Your task to perform on an android device: open app "Yahoo Mail" Image 0: 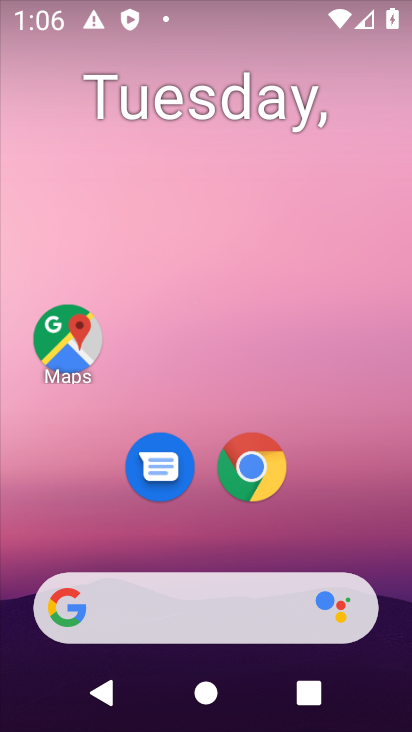
Step 0: click (361, 513)
Your task to perform on an android device: open app "Yahoo Mail" Image 1: 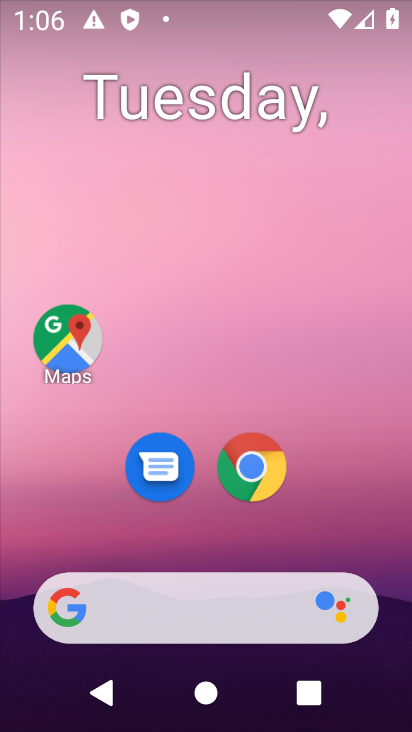
Step 1: click (65, 335)
Your task to perform on an android device: open app "Yahoo Mail" Image 2: 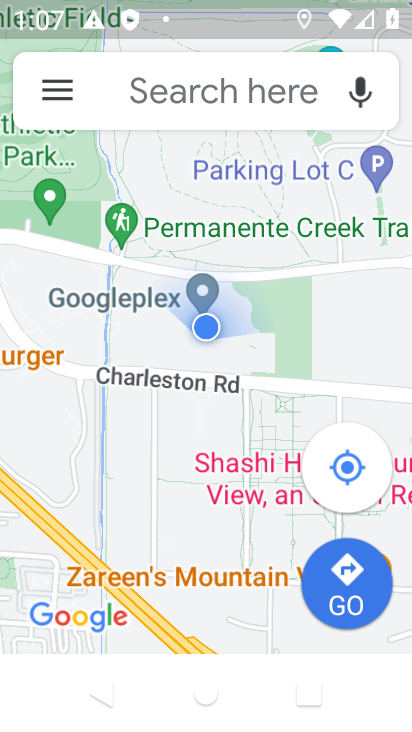
Step 2: click (189, 107)
Your task to perform on an android device: open app "Yahoo Mail" Image 3: 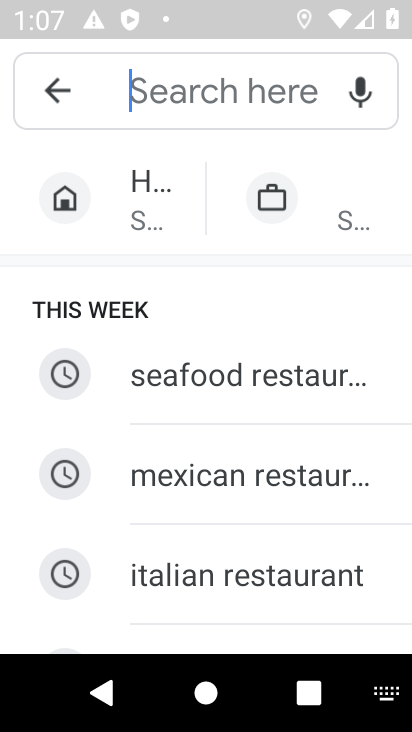
Step 3: press home button
Your task to perform on an android device: open app "Yahoo Mail" Image 4: 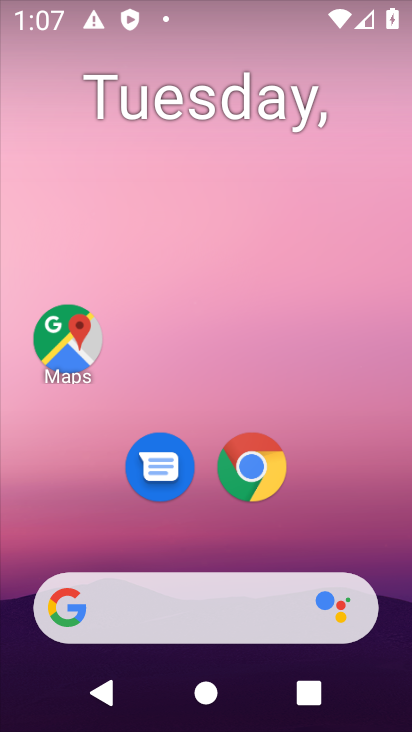
Step 4: drag from (331, 516) to (227, 230)
Your task to perform on an android device: open app "Yahoo Mail" Image 5: 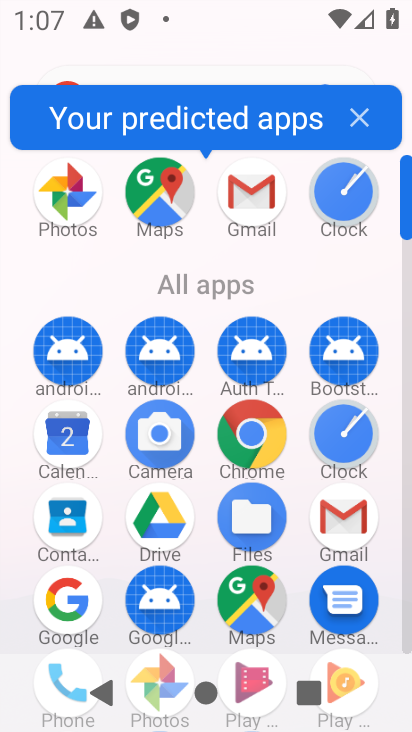
Step 5: drag from (307, 297) to (196, 94)
Your task to perform on an android device: open app "Yahoo Mail" Image 6: 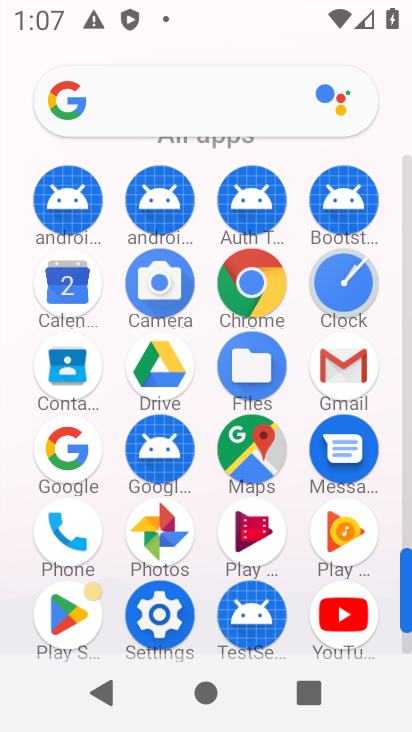
Step 6: click (59, 625)
Your task to perform on an android device: open app "Yahoo Mail" Image 7: 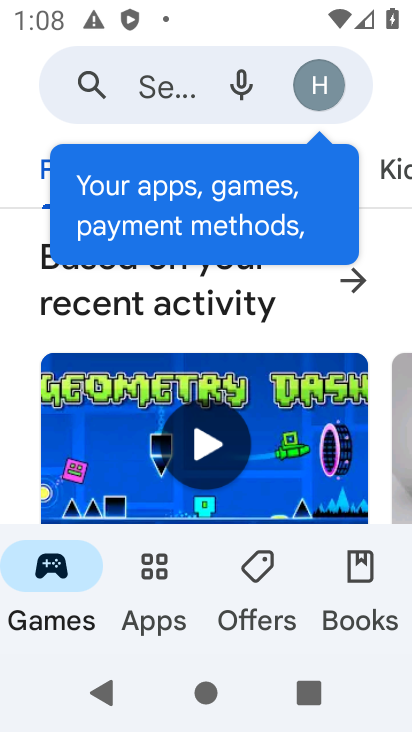
Step 7: click (175, 91)
Your task to perform on an android device: open app "Yahoo Mail" Image 8: 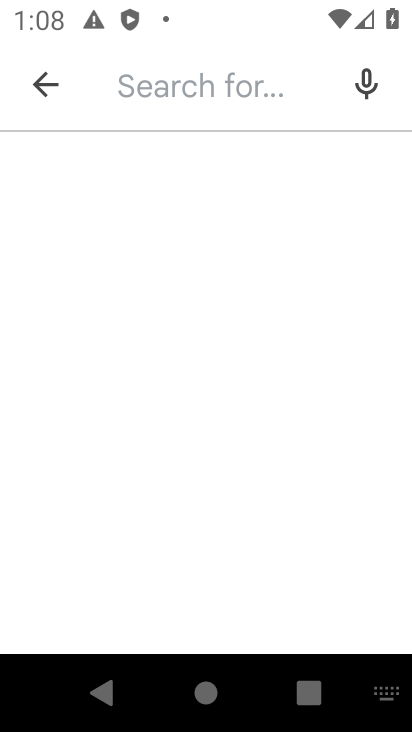
Step 8: type "yahoo mail"
Your task to perform on an android device: open app "Yahoo Mail" Image 9: 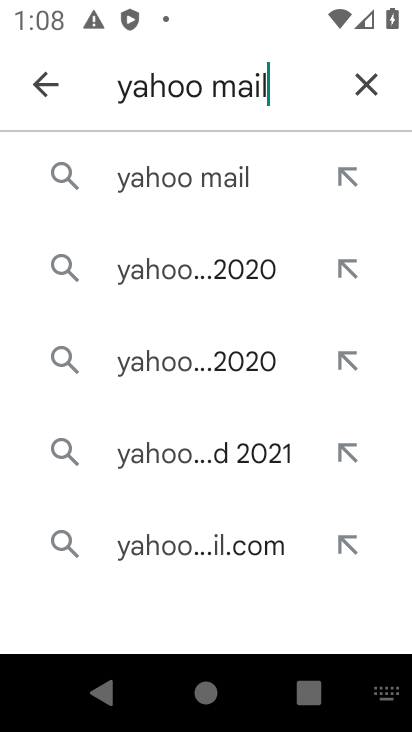
Step 9: click (228, 178)
Your task to perform on an android device: open app "Yahoo Mail" Image 10: 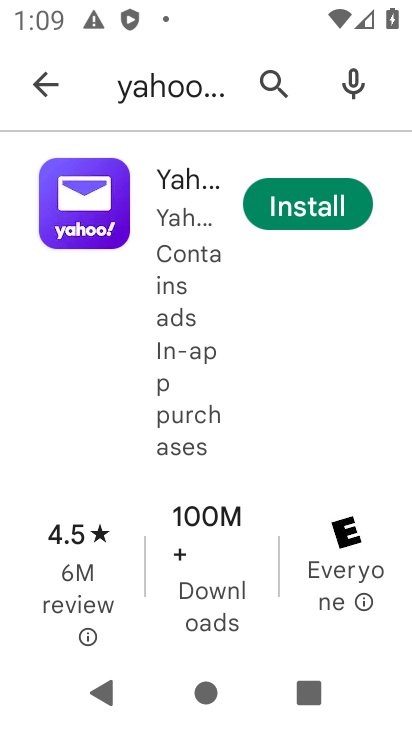
Step 10: task complete